Your task to perform on an android device: Do I have any events today? Image 0: 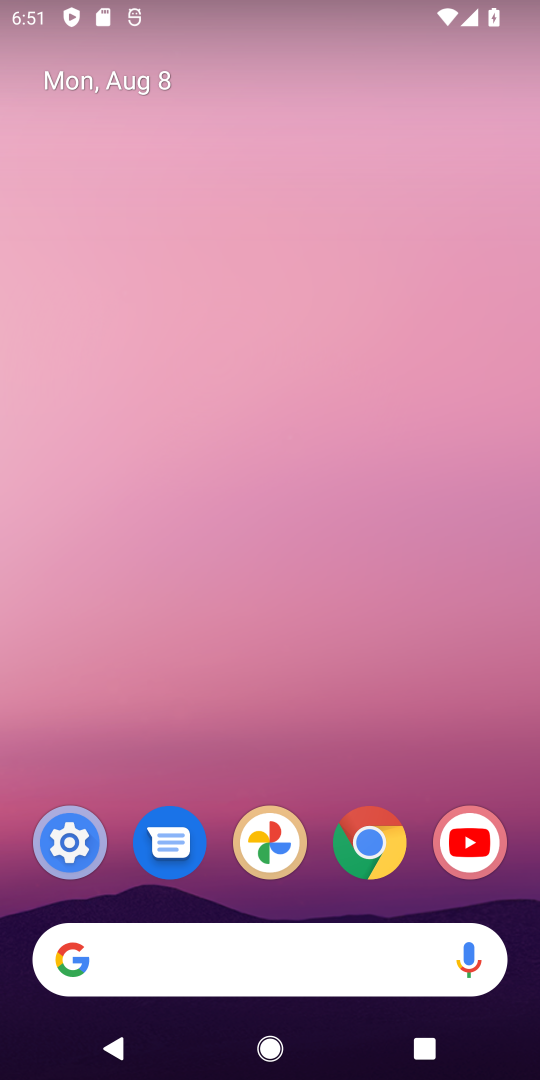
Step 0: click (242, 930)
Your task to perform on an android device: Do I have any events today? Image 1: 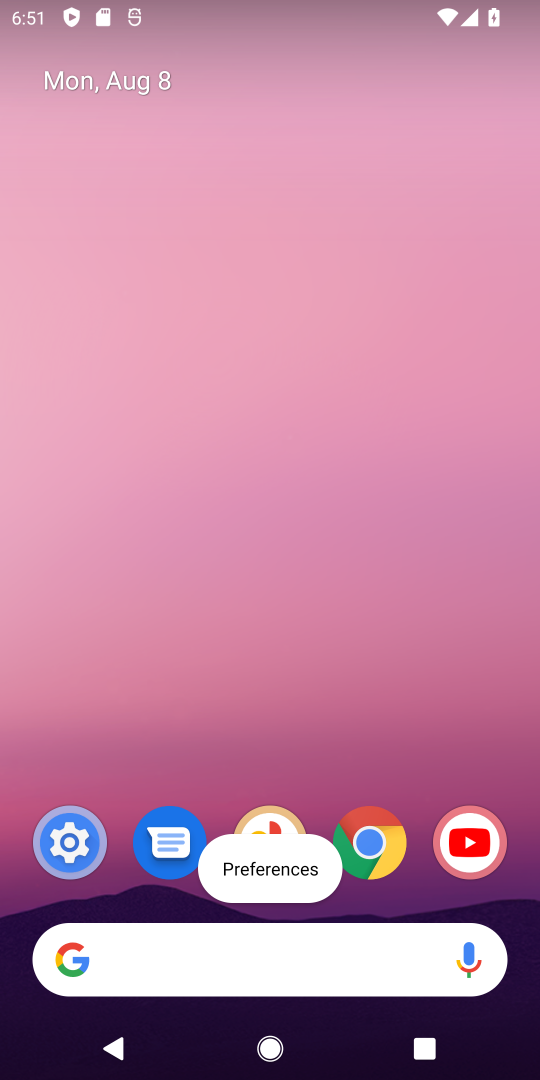
Step 1: click (267, 946)
Your task to perform on an android device: Do I have any events today? Image 2: 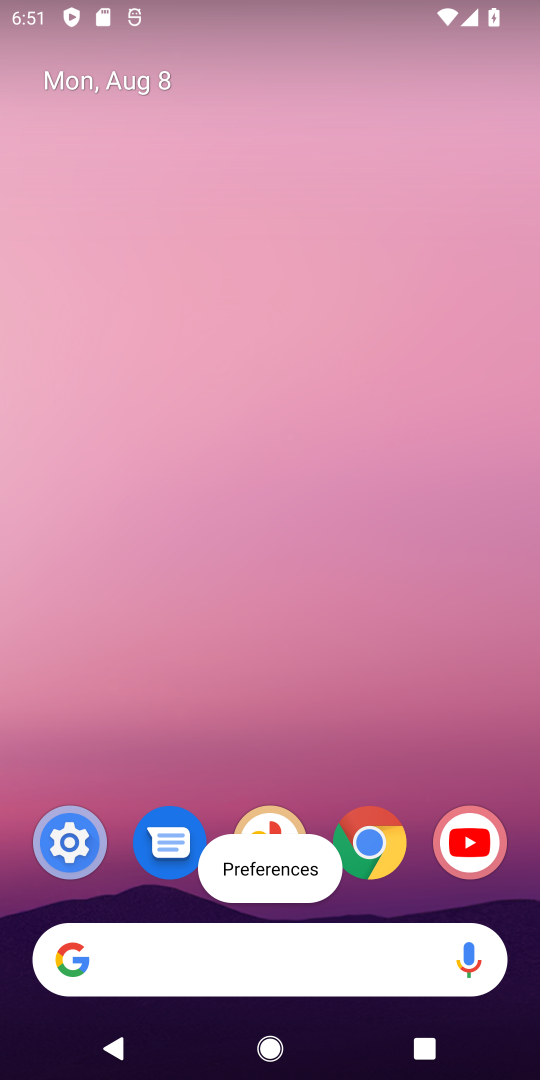
Step 2: drag from (294, 887) to (298, 29)
Your task to perform on an android device: Do I have any events today? Image 3: 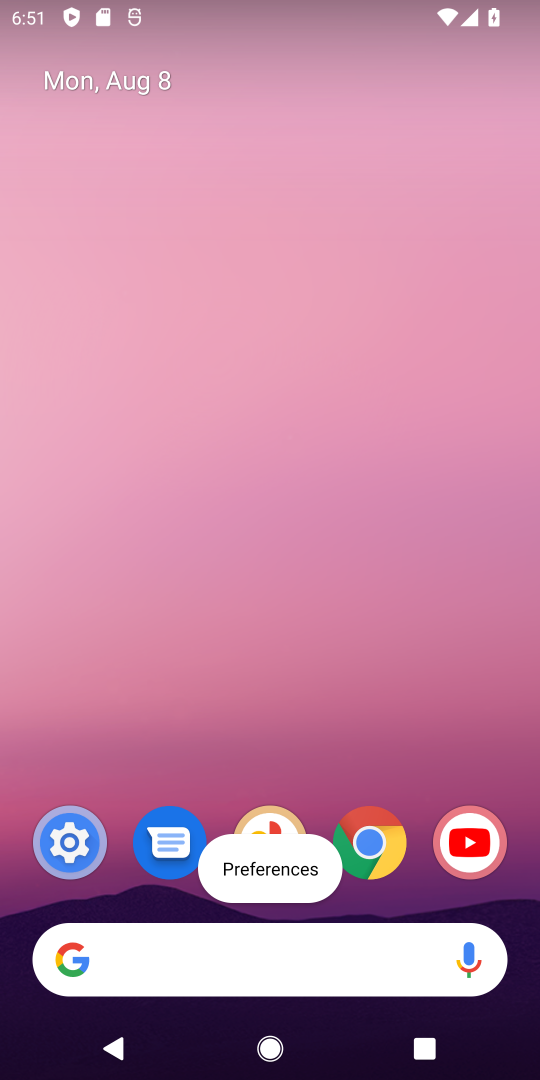
Step 3: click (345, 765)
Your task to perform on an android device: Do I have any events today? Image 4: 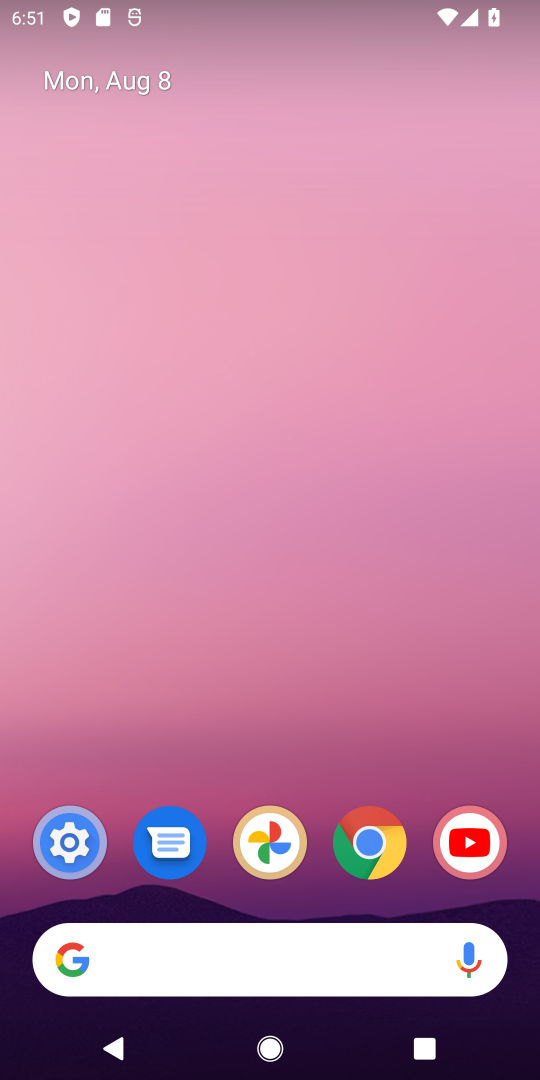
Step 4: drag from (320, 806) to (536, 431)
Your task to perform on an android device: Do I have any events today? Image 5: 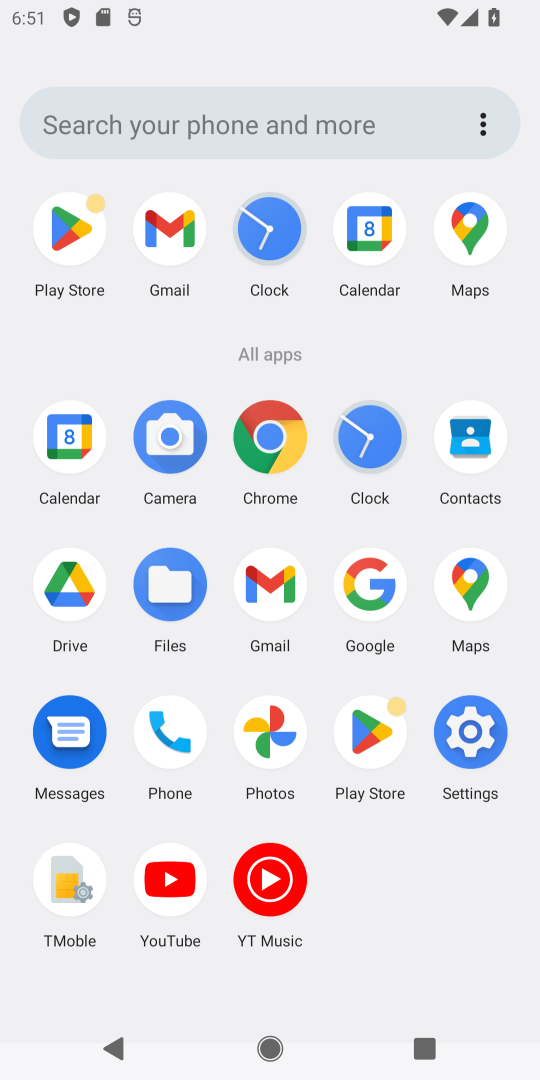
Step 5: click (81, 416)
Your task to perform on an android device: Do I have any events today? Image 6: 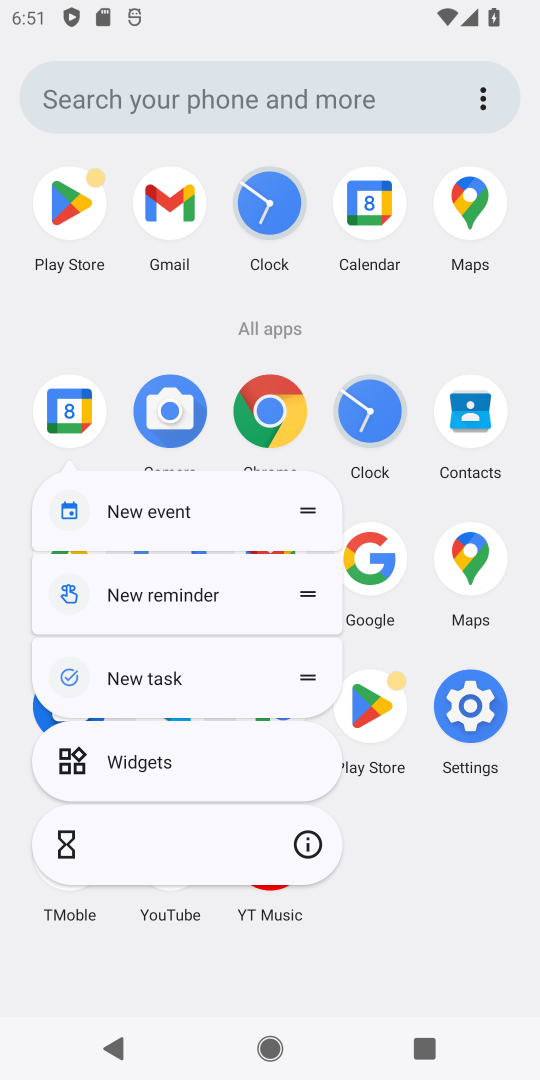
Step 6: click (81, 416)
Your task to perform on an android device: Do I have any events today? Image 7: 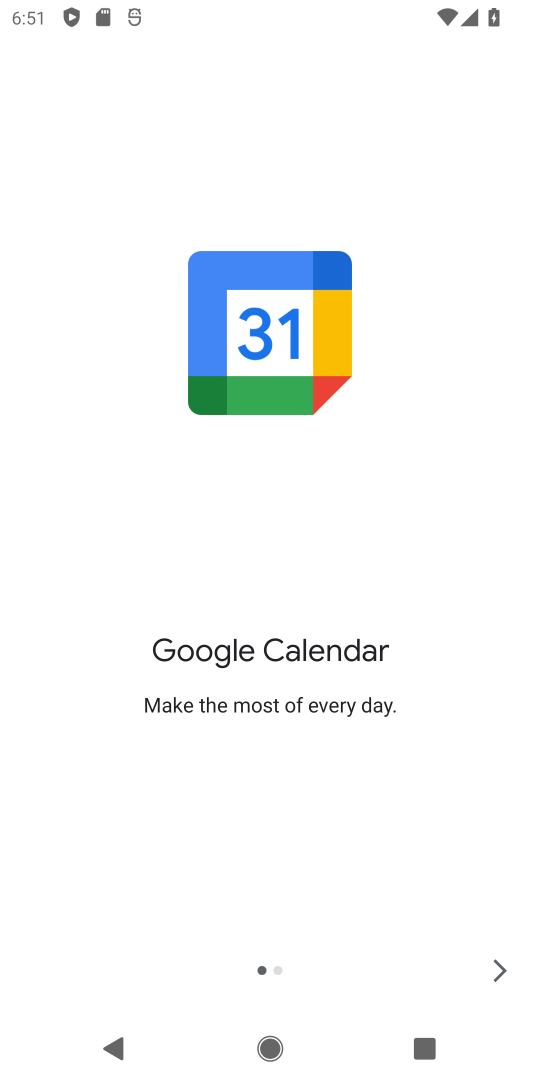
Step 7: click (502, 966)
Your task to perform on an android device: Do I have any events today? Image 8: 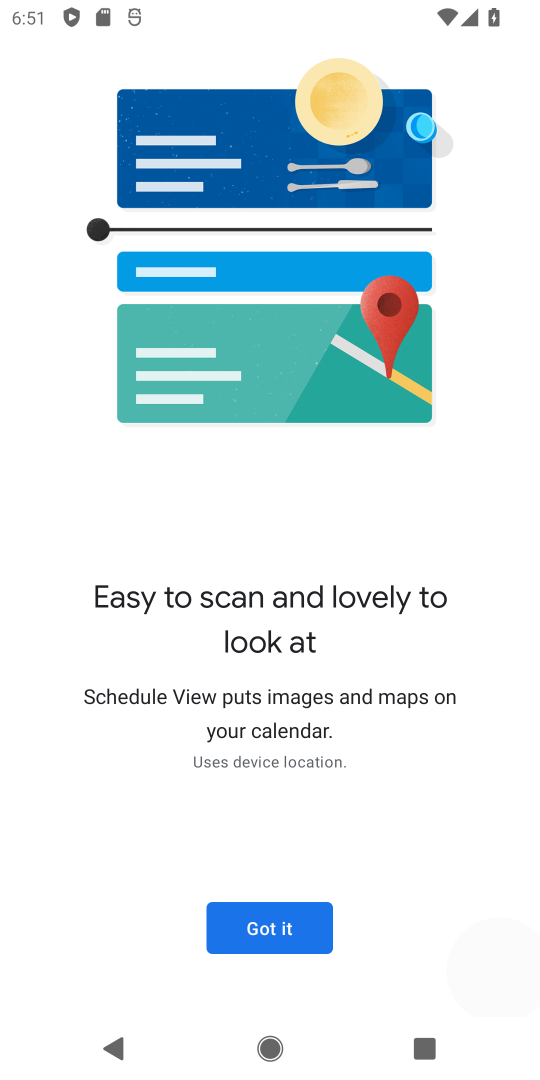
Step 8: click (501, 965)
Your task to perform on an android device: Do I have any events today? Image 9: 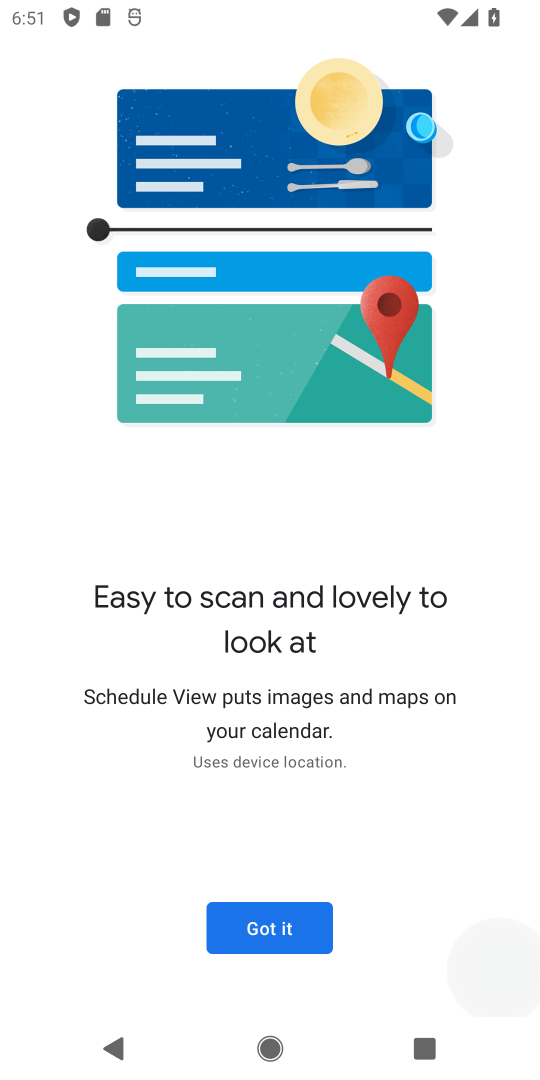
Step 9: click (292, 917)
Your task to perform on an android device: Do I have any events today? Image 10: 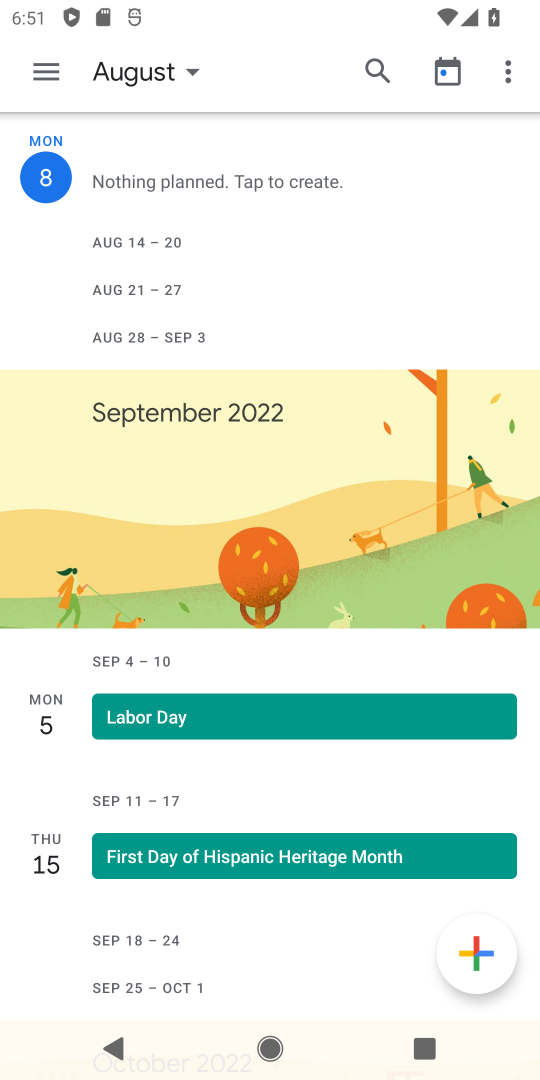
Step 10: task complete